Your task to perform on an android device: toggle notification dots Image 0: 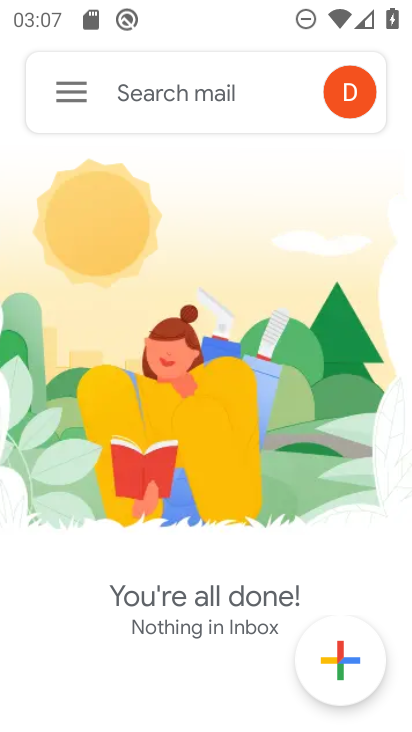
Step 0: press home button
Your task to perform on an android device: toggle notification dots Image 1: 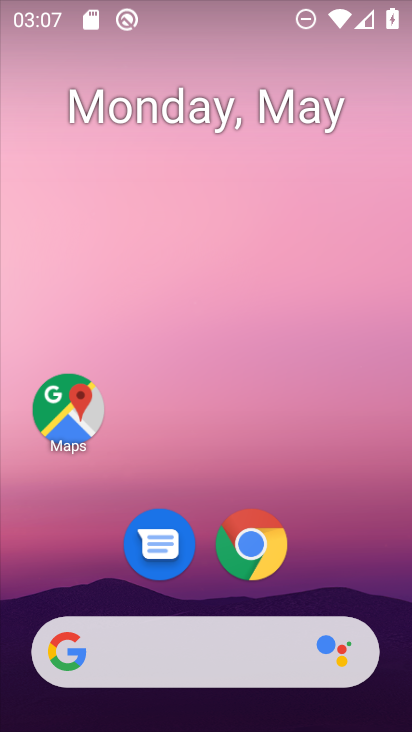
Step 1: drag from (367, 550) to (372, 206)
Your task to perform on an android device: toggle notification dots Image 2: 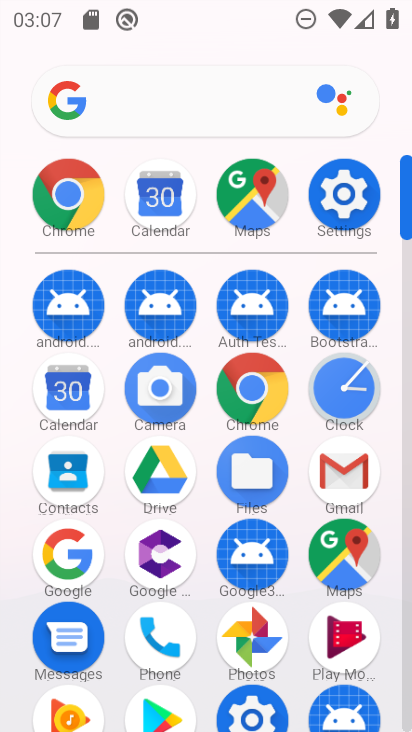
Step 2: click (347, 220)
Your task to perform on an android device: toggle notification dots Image 3: 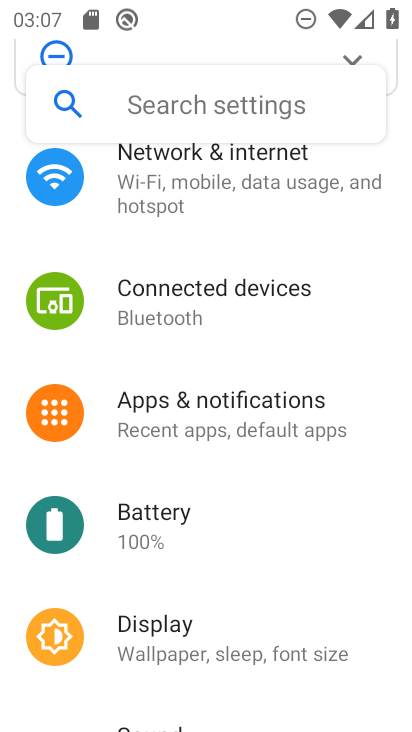
Step 3: drag from (354, 260) to (325, 453)
Your task to perform on an android device: toggle notification dots Image 4: 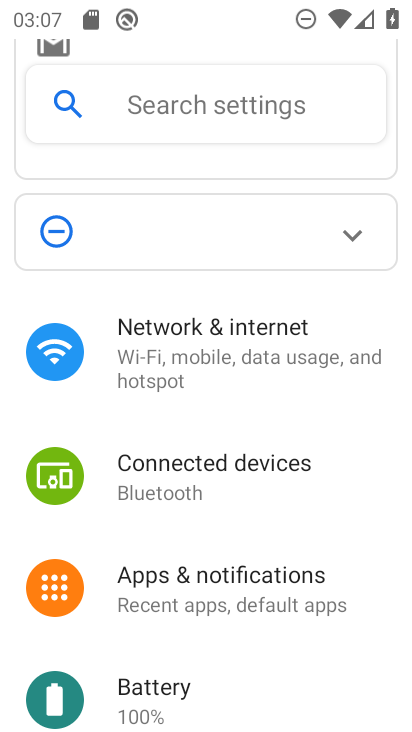
Step 4: drag from (330, 514) to (325, 338)
Your task to perform on an android device: toggle notification dots Image 5: 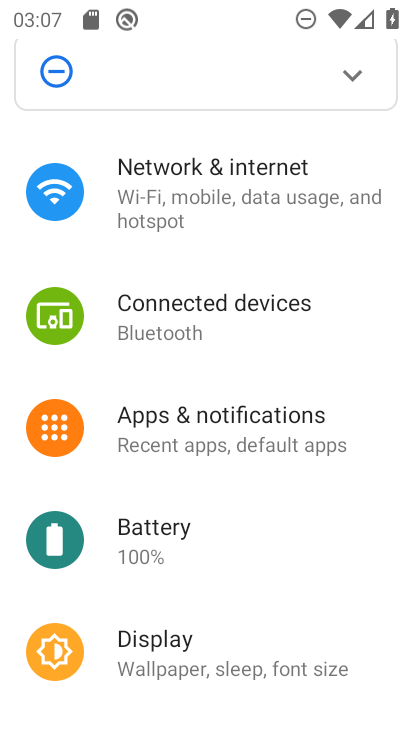
Step 5: drag from (341, 600) to (355, 463)
Your task to perform on an android device: toggle notification dots Image 6: 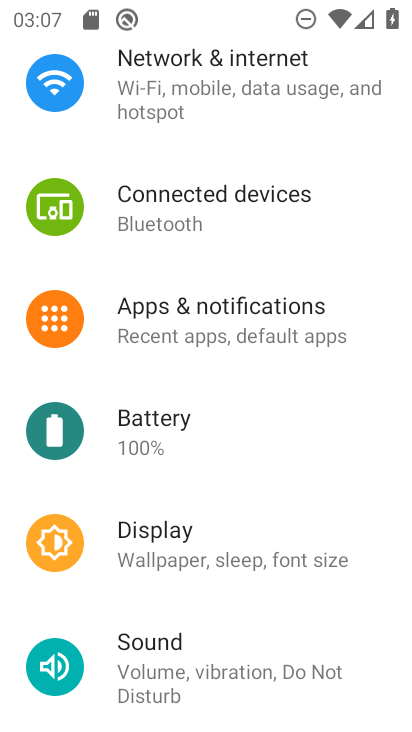
Step 6: drag from (348, 610) to (338, 456)
Your task to perform on an android device: toggle notification dots Image 7: 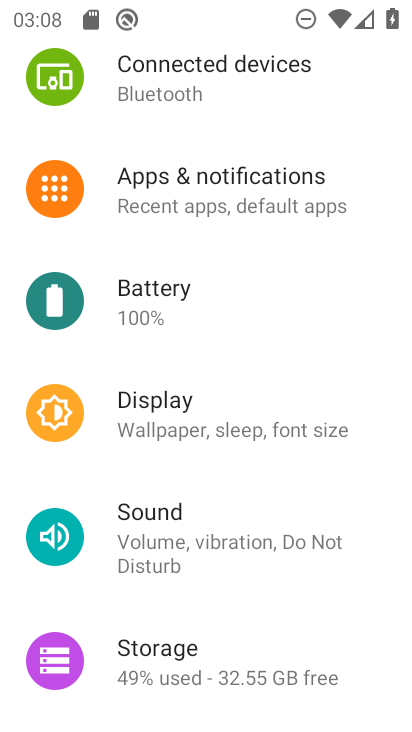
Step 7: drag from (340, 619) to (340, 390)
Your task to perform on an android device: toggle notification dots Image 8: 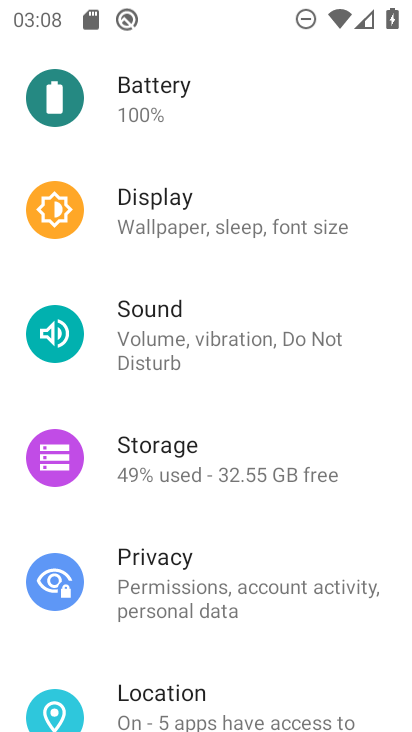
Step 8: drag from (340, 635) to (354, 431)
Your task to perform on an android device: toggle notification dots Image 9: 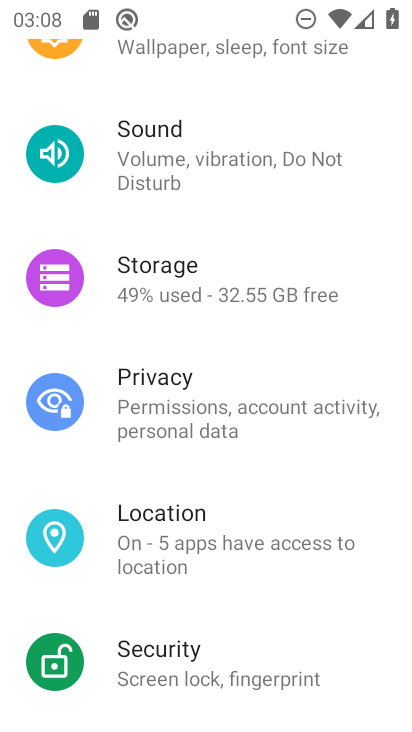
Step 9: drag from (344, 638) to (337, 506)
Your task to perform on an android device: toggle notification dots Image 10: 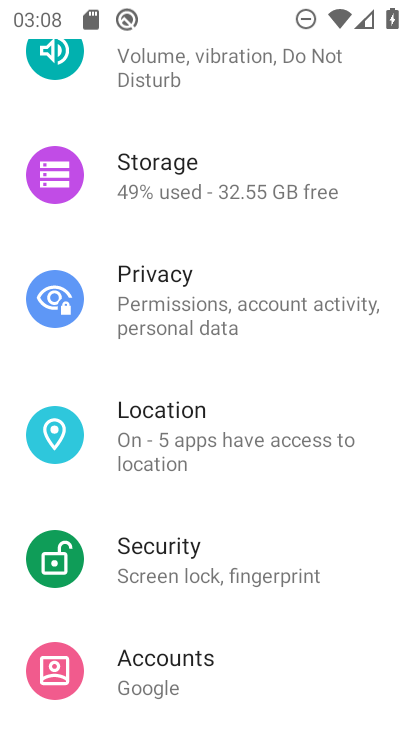
Step 10: drag from (336, 621) to (357, 425)
Your task to perform on an android device: toggle notification dots Image 11: 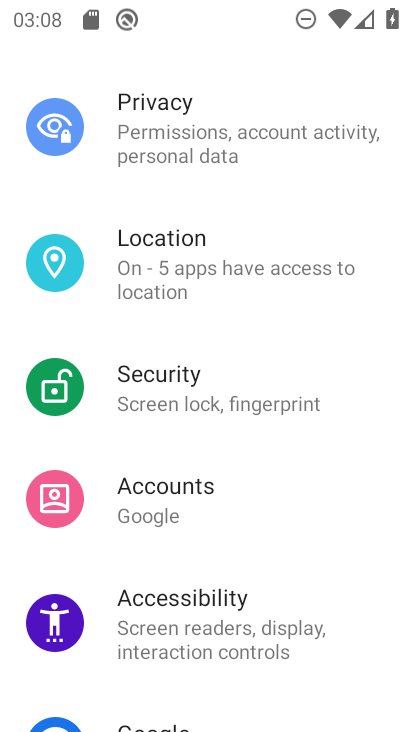
Step 11: drag from (370, 350) to (342, 519)
Your task to perform on an android device: toggle notification dots Image 12: 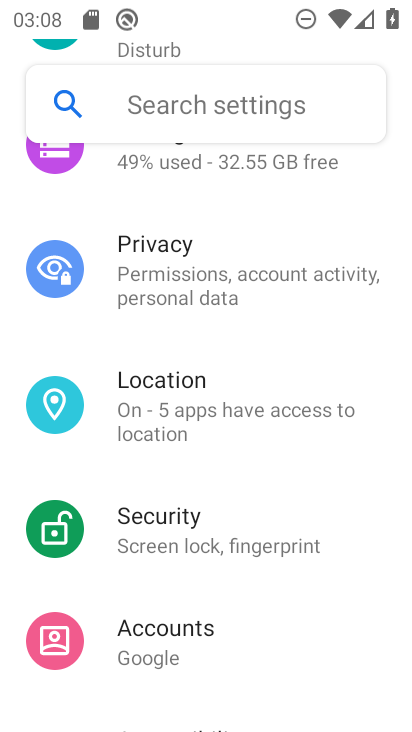
Step 12: drag from (315, 324) to (290, 479)
Your task to perform on an android device: toggle notification dots Image 13: 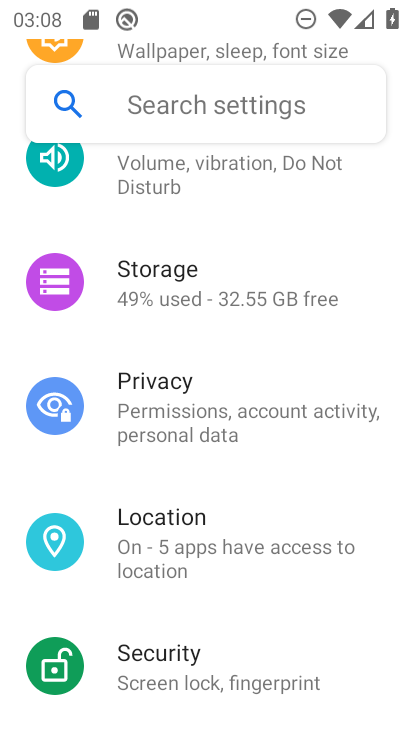
Step 13: drag from (339, 256) to (307, 440)
Your task to perform on an android device: toggle notification dots Image 14: 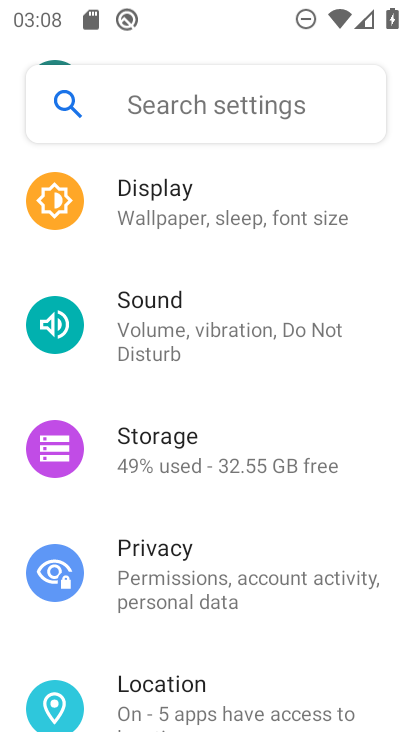
Step 14: drag from (348, 257) to (329, 496)
Your task to perform on an android device: toggle notification dots Image 15: 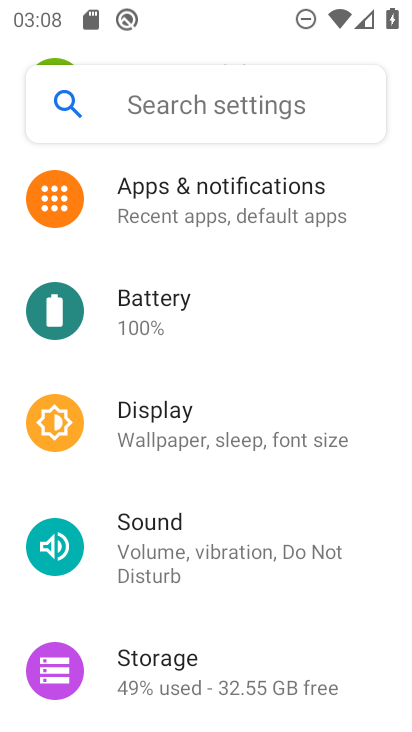
Step 15: drag from (328, 290) to (334, 441)
Your task to perform on an android device: toggle notification dots Image 16: 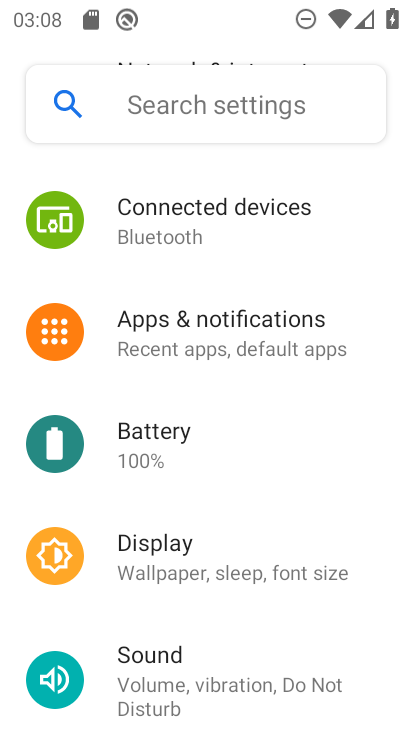
Step 16: click (281, 315)
Your task to perform on an android device: toggle notification dots Image 17: 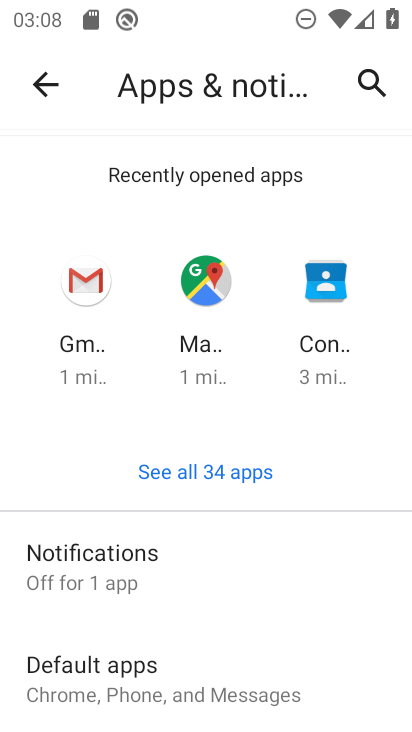
Step 17: click (106, 575)
Your task to perform on an android device: toggle notification dots Image 18: 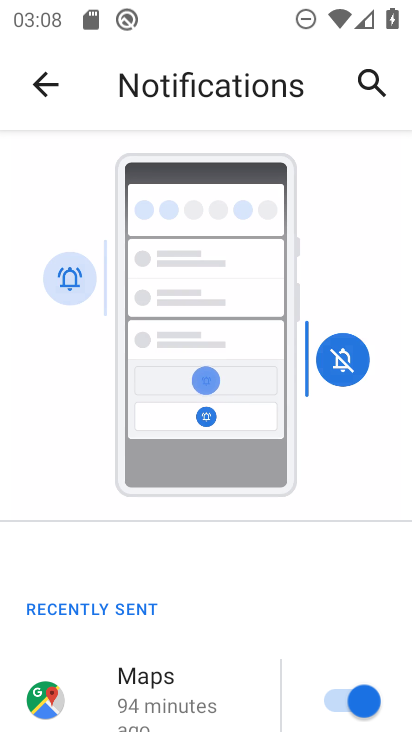
Step 18: drag from (276, 617) to (269, 472)
Your task to perform on an android device: toggle notification dots Image 19: 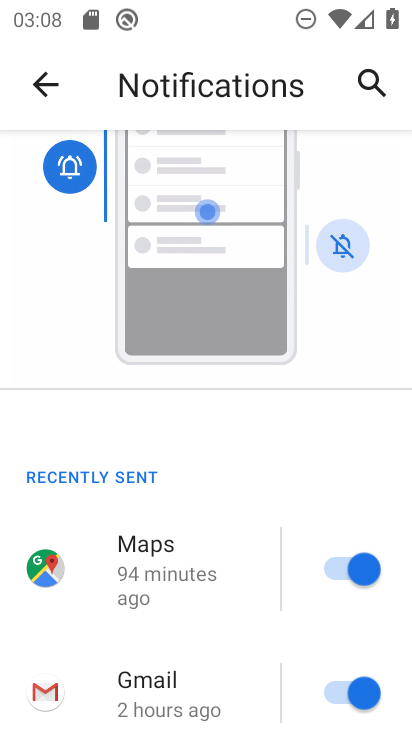
Step 19: drag from (232, 645) to (243, 471)
Your task to perform on an android device: toggle notification dots Image 20: 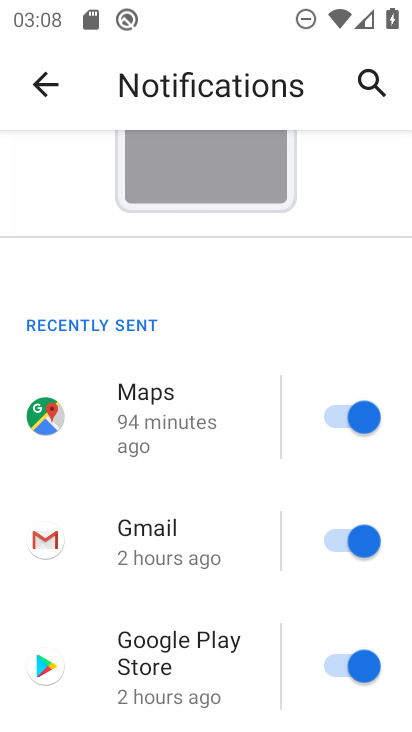
Step 20: drag from (253, 662) to (263, 562)
Your task to perform on an android device: toggle notification dots Image 21: 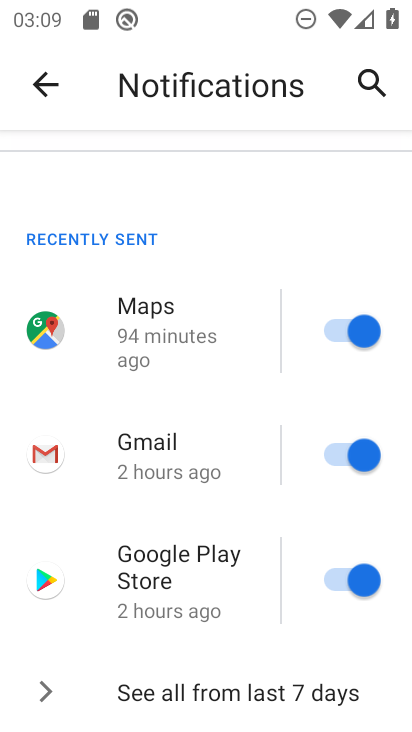
Step 21: drag from (260, 680) to (270, 552)
Your task to perform on an android device: toggle notification dots Image 22: 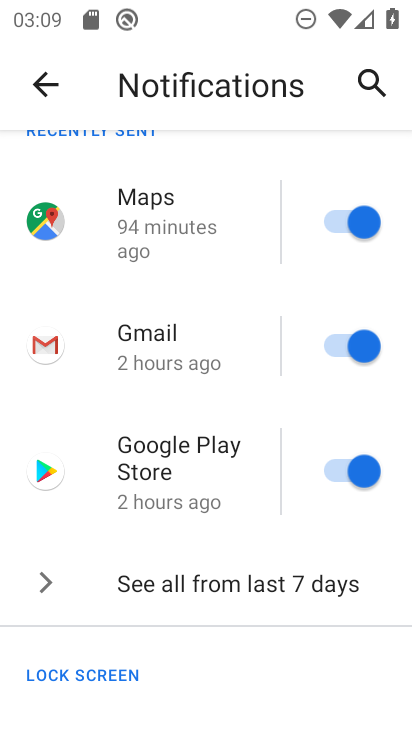
Step 22: drag from (268, 665) to (243, 496)
Your task to perform on an android device: toggle notification dots Image 23: 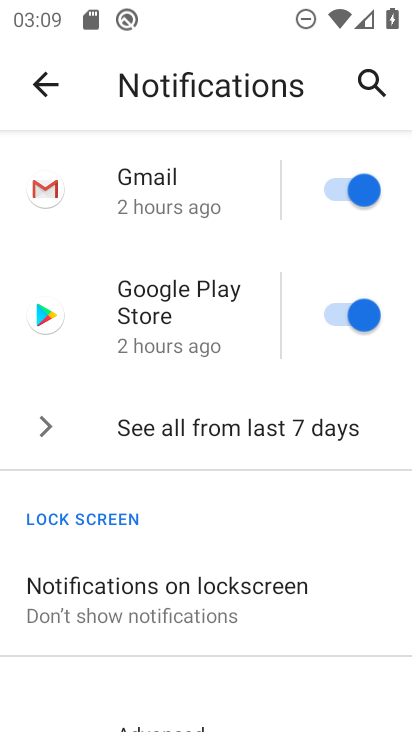
Step 23: drag from (249, 632) to (210, 460)
Your task to perform on an android device: toggle notification dots Image 24: 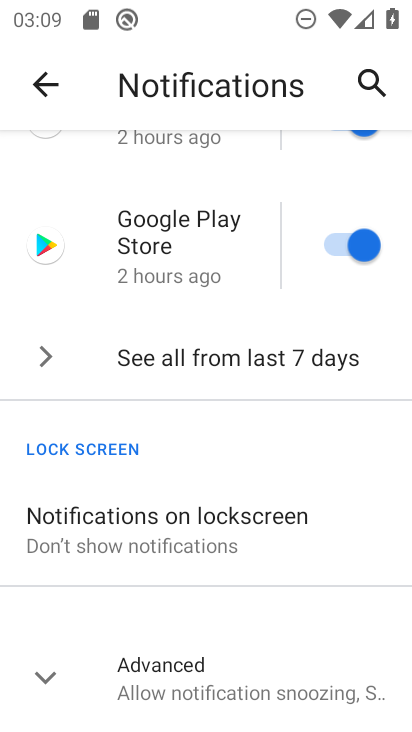
Step 24: click (237, 673)
Your task to perform on an android device: toggle notification dots Image 25: 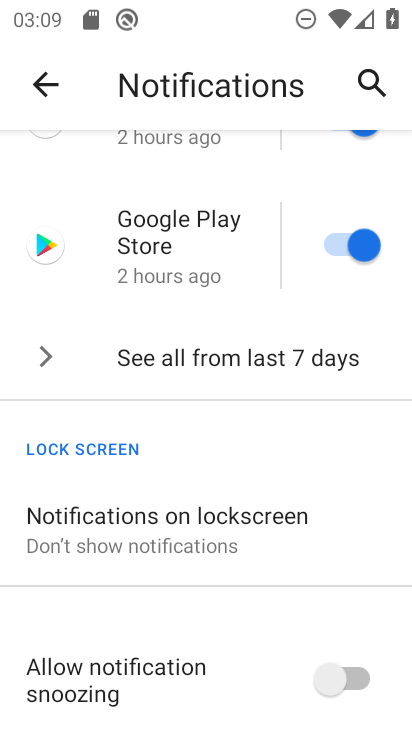
Step 25: drag from (230, 649) to (216, 464)
Your task to perform on an android device: toggle notification dots Image 26: 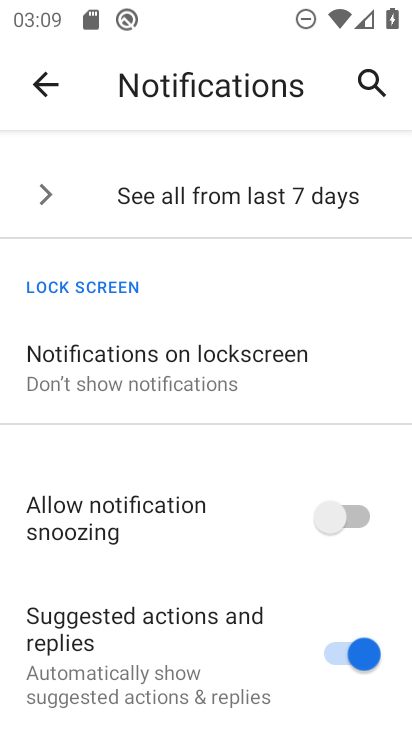
Step 26: drag from (241, 639) to (241, 490)
Your task to perform on an android device: toggle notification dots Image 27: 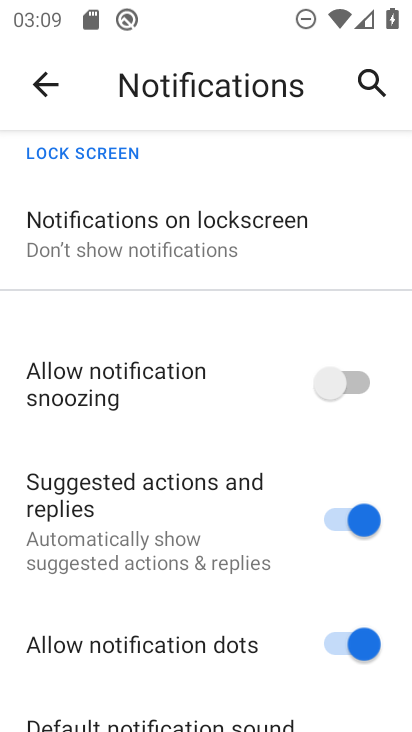
Step 27: click (349, 661)
Your task to perform on an android device: toggle notification dots Image 28: 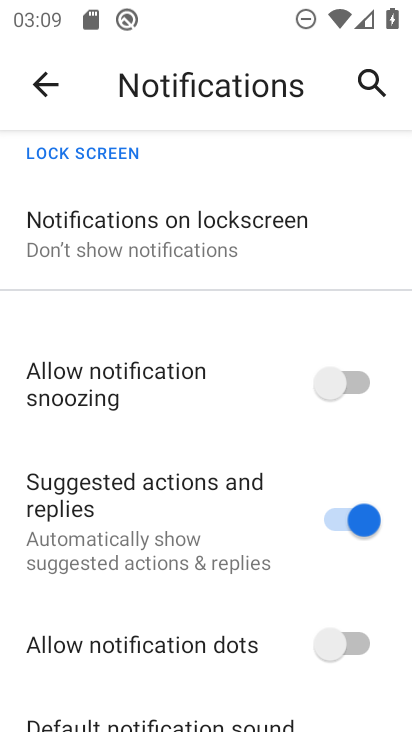
Step 28: task complete